Your task to perform on an android device: stop showing notifications on the lock screen Image 0: 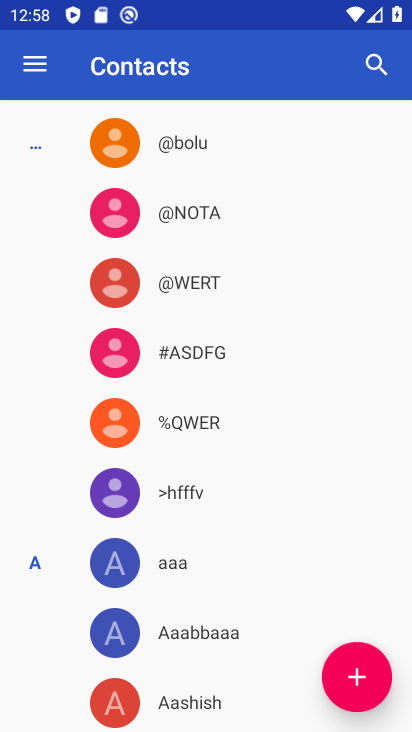
Step 0: press home button
Your task to perform on an android device: stop showing notifications on the lock screen Image 1: 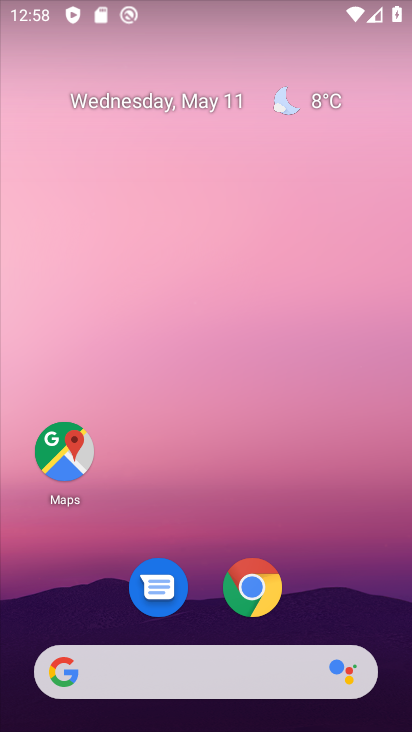
Step 1: drag from (336, 491) to (334, 235)
Your task to perform on an android device: stop showing notifications on the lock screen Image 2: 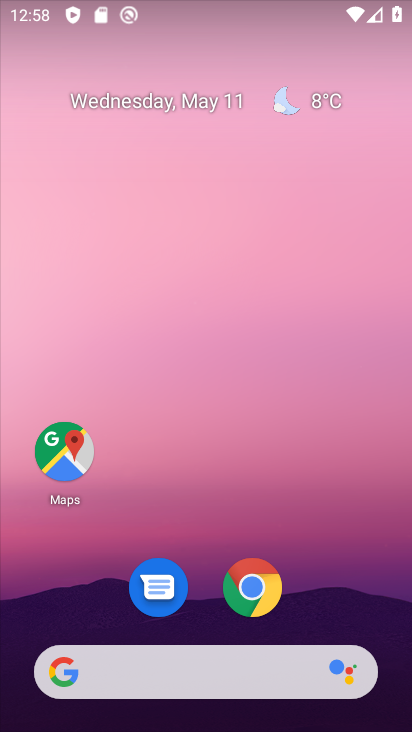
Step 2: drag from (378, 436) to (261, 206)
Your task to perform on an android device: stop showing notifications on the lock screen Image 3: 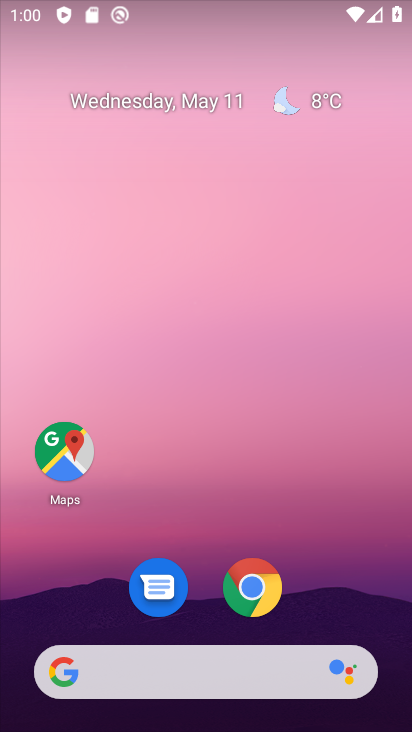
Step 3: drag from (337, 444) to (250, 23)
Your task to perform on an android device: stop showing notifications on the lock screen Image 4: 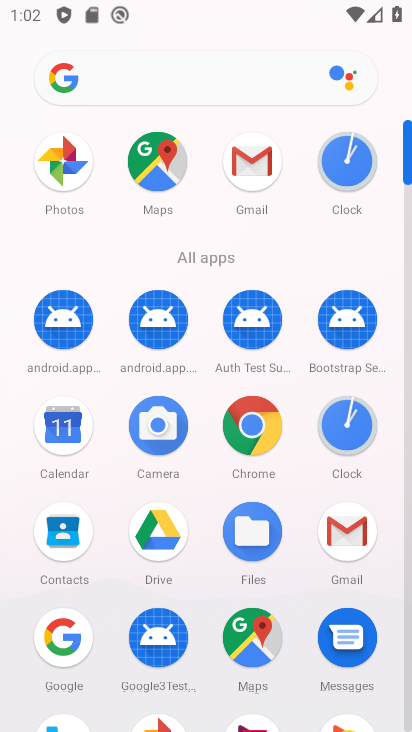
Step 4: click (405, 727)
Your task to perform on an android device: stop showing notifications on the lock screen Image 5: 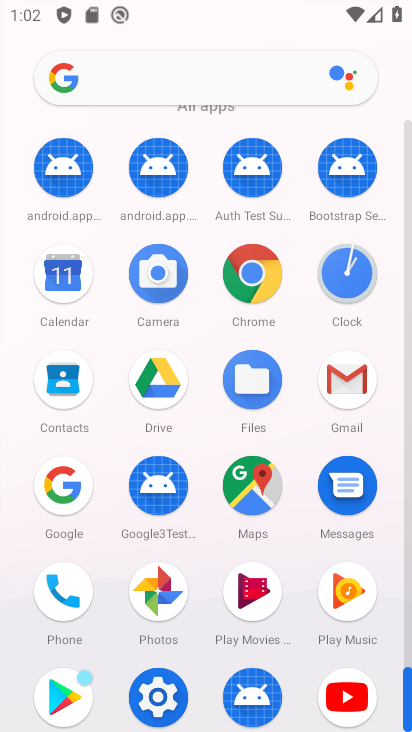
Step 5: click (405, 727)
Your task to perform on an android device: stop showing notifications on the lock screen Image 6: 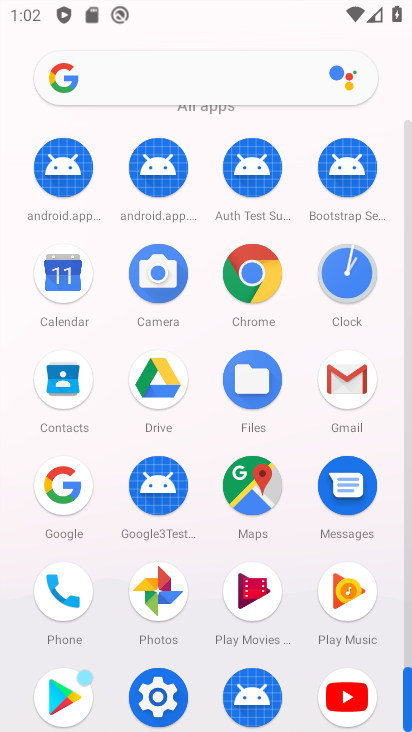
Step 6: click (154, 695)
Your task to perform on an android device: stop showing notifications on the lock screen Image 7: 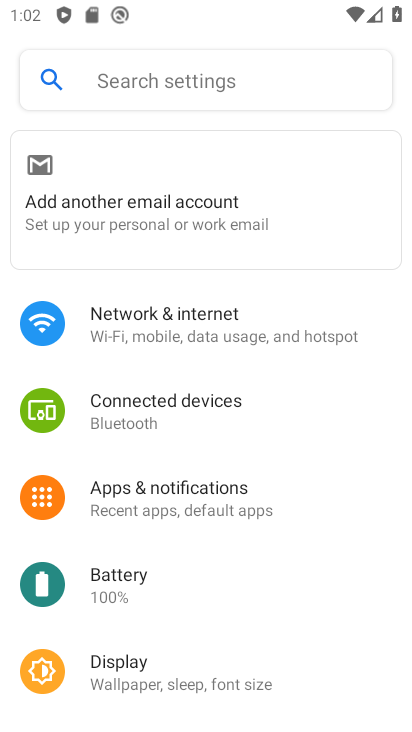
Step 7: click (197, 489)
Your task to perform on an android device: stop showing notifications on the lock screen Image 8: 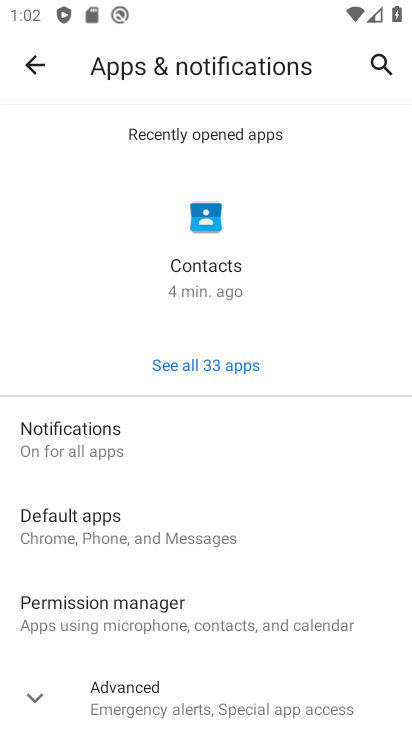
Step 8: click (230, 707)
Your task to perform on an android device: stop showing notifications on the lock screen Image 9: 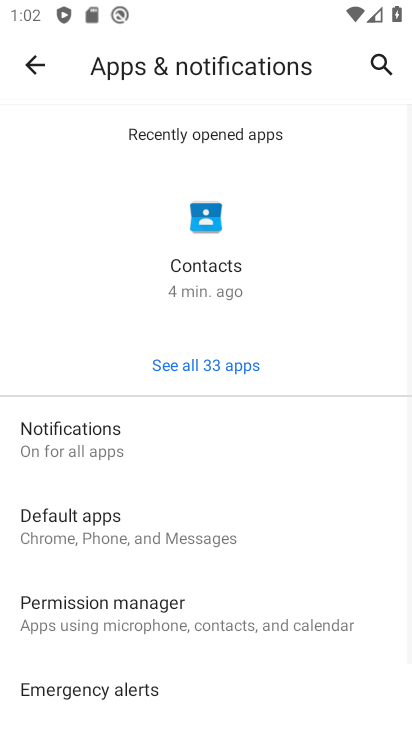
Step 9: drag from (229, 656) to (239, 371)
Your task to perform on an android device: stop showing notifications on the lock screen Image 10: 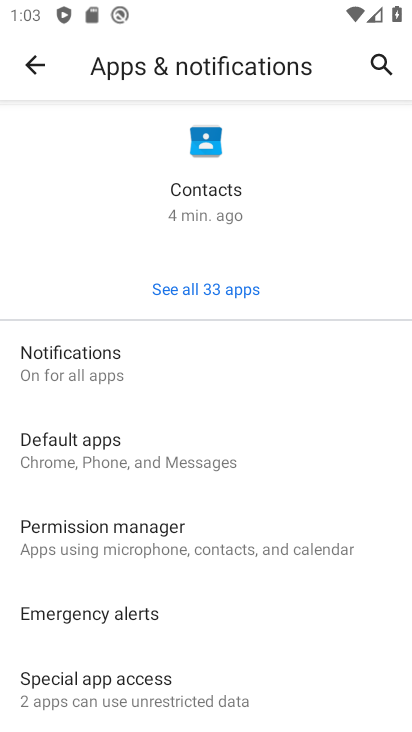
Step 10: click (128, 206)
Your task to perform on an android device: stop showing notifications on the lock screen Image 11: 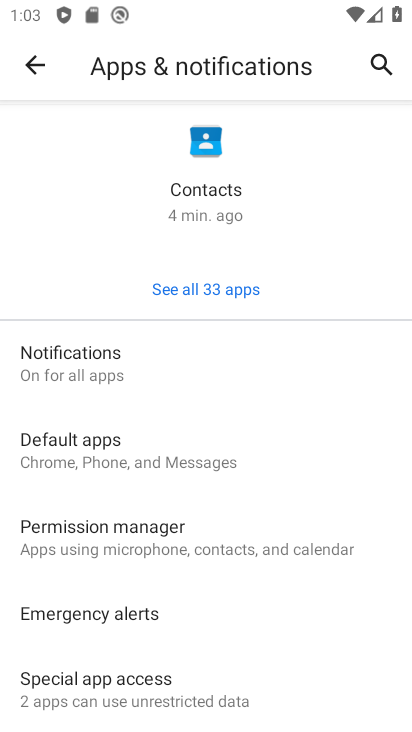
Step 11: drag from (195, 386) to (185, 258)
Your task to perform on an android device: stop showing notifications on the lock screen Image 12: 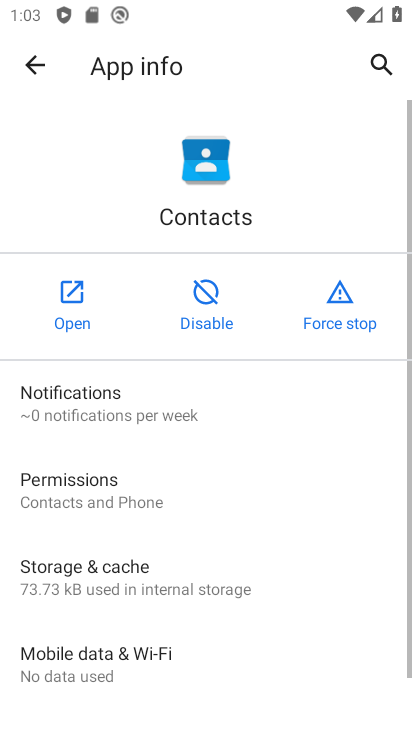
Step 12: drag from (223, 374) to (223, 302)
Your task to perform on an android device: stop showing notifications on the lock screen Image 13: 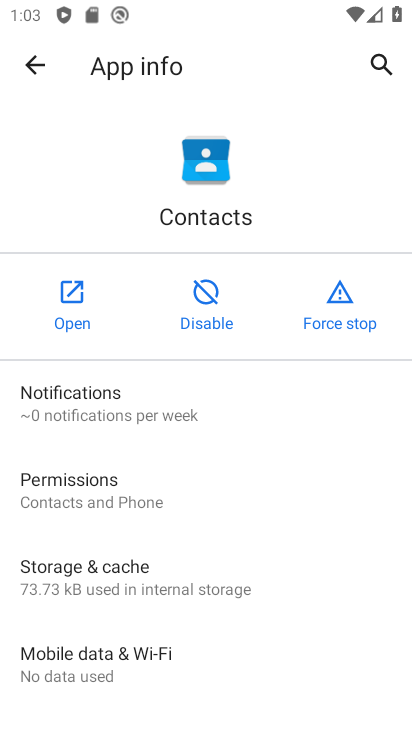
Step 13: drag from (211, 584) to (234, 212)
Your task to perform on an android device: stop showing notifications on the lock screen Image 14: 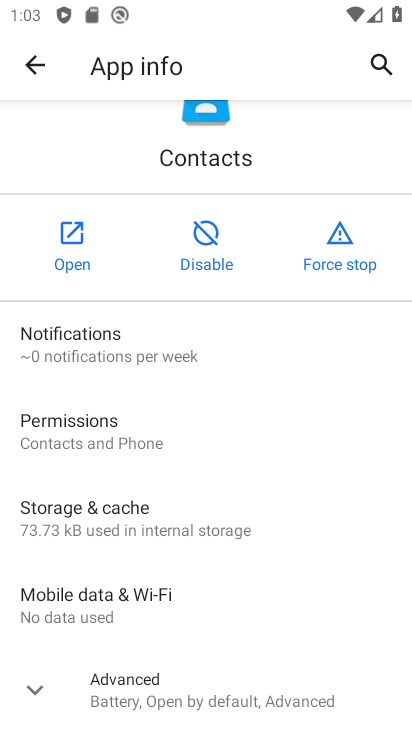
Step 14: drag from (152, 614) to (173, 259)
Your task to perform on an android device: stop showing notifications on the lock screen Image 15: 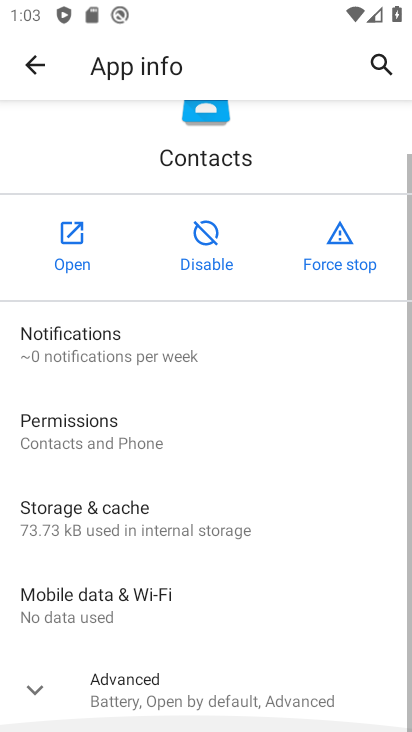
Step 15: click (162, 704)
Your task to perform on an android device: stop showing notifications on the lock screen Image 16: 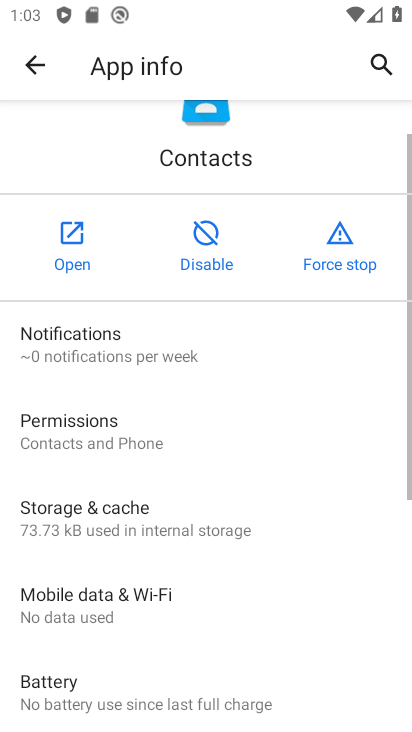
Step 16: drag from (228, 683) to (228, 216)
Your task to perform on an android device: stop showing notifications on the lock screen Image 17: 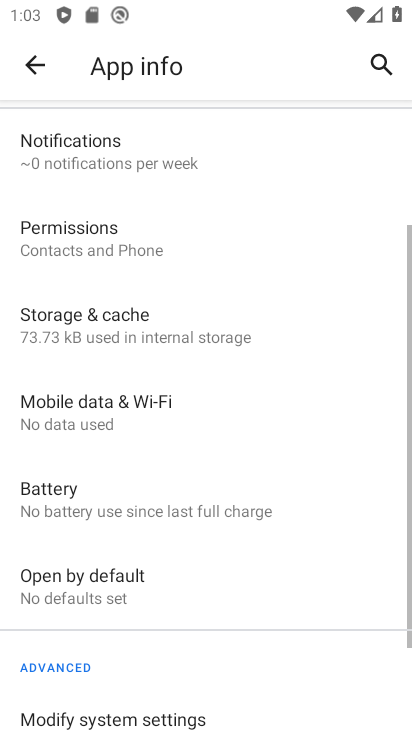
Step 17: drag from (275, 309) to (283, 81)
Your task to perform on an android device: stop showing notifications on the lock screen Image 18: 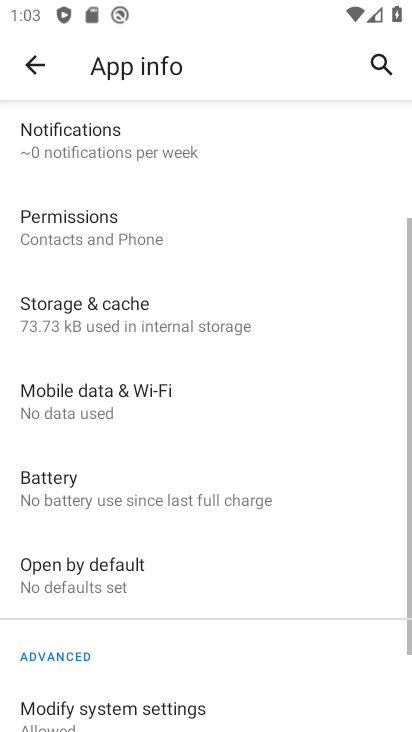
Step 18: drag from (231, 197) to (232, 153)
Your task to perform on an android device: stop showing notifications on the lock screen Image 19: 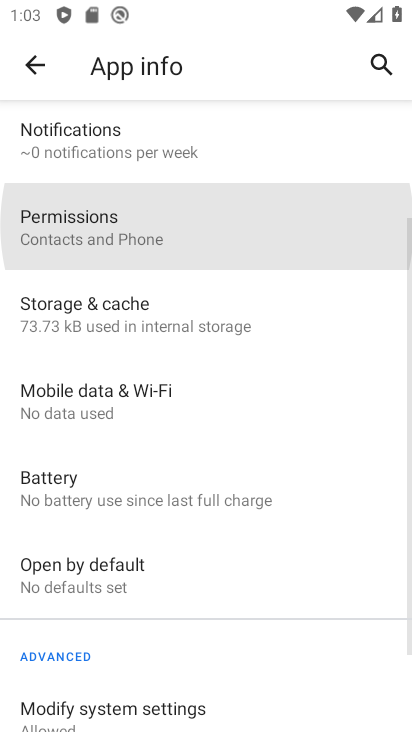
Step 19: drag from (224, 271) to (224, 138)
Your task to perform on an android device: stop showing notifications on the lock screen Image 20: 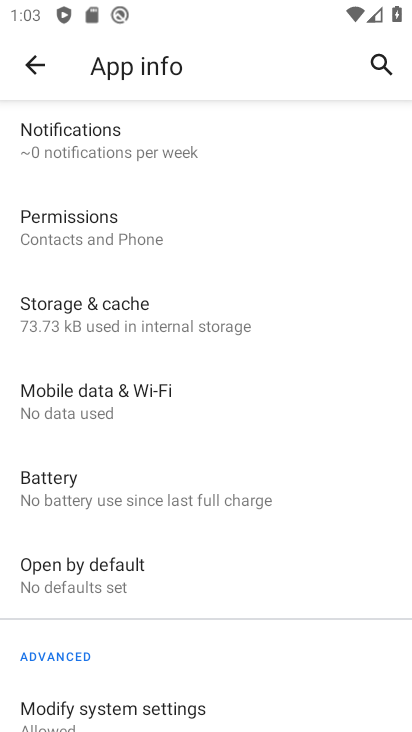
Step 20: drag from (248, 432) to (232, 100)
Your task to perform on an android device: stop showing notifications on the lock screen Image 21: 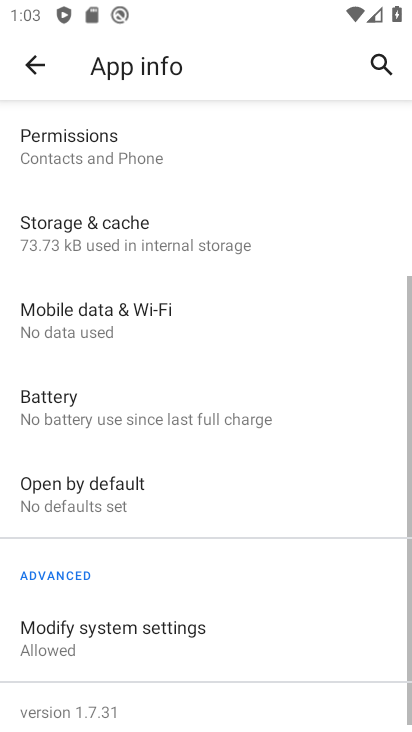
Step 21: drag from (232, 186) to (232, 113)
Your task to perform on an android device: stop showing notifications on the lock screen Image 22: 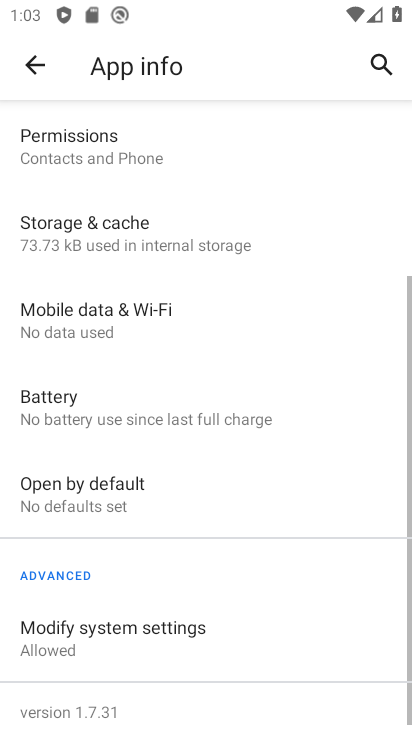
Step 22: drag from (259, 458) to (279, 136)
Your task to perform on an android device: stop showing notifications on the lock screen Image 23: 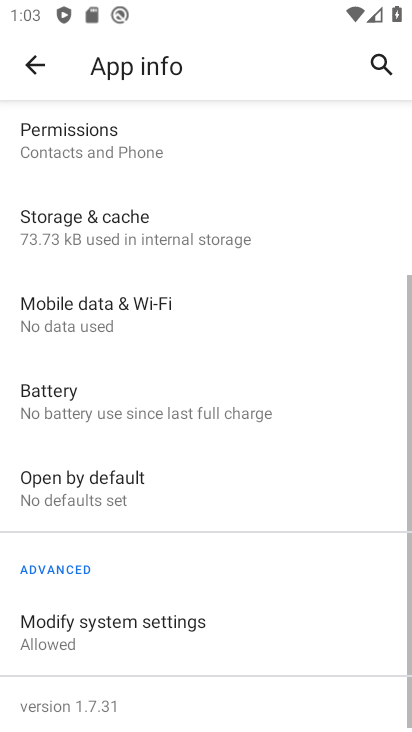
Step 23: drag from (225, 650) to (246, 311)
Your task to perform on an android device: stop showing notifications on the lock screen Image 24: 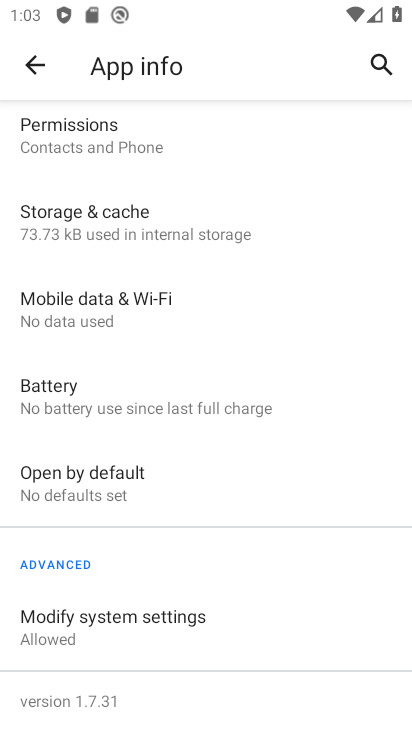
Step 24: drag from (255, 274) to (19, 727)
Your task to perform on an android device: stop showing notifications on the lock screen Image 25: 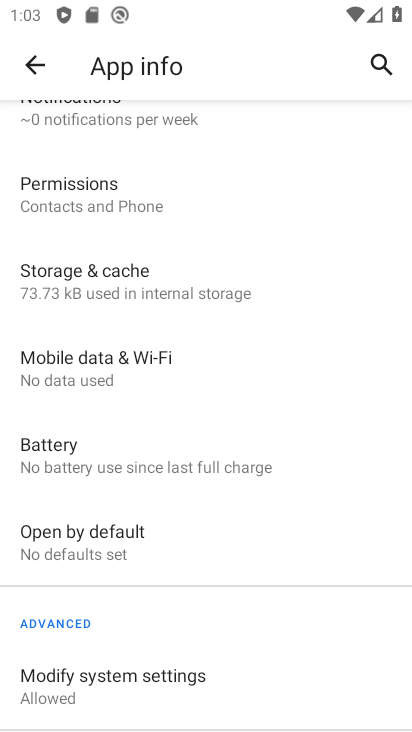
Step 25: drag from (186, 185) to (67, 710)
Your task to perform on an android device: stop showing notifications on the lock screen Image 26: 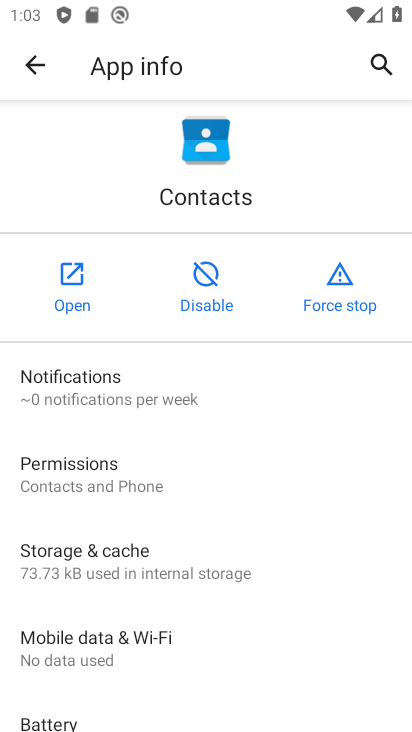
Step 26: click (24, 49)
Your task to perform on an android device: stop showing notifications on the lock screen Image 27: 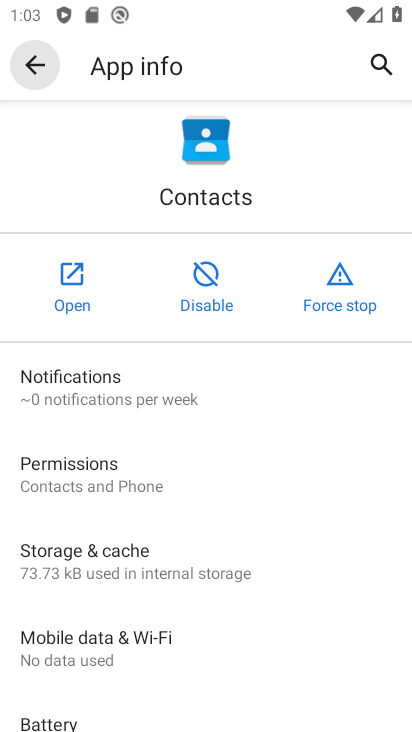
Step 27: click (24, 49)
Your task to perform on an android device: stop showing notifications on the lock screen Image 28: 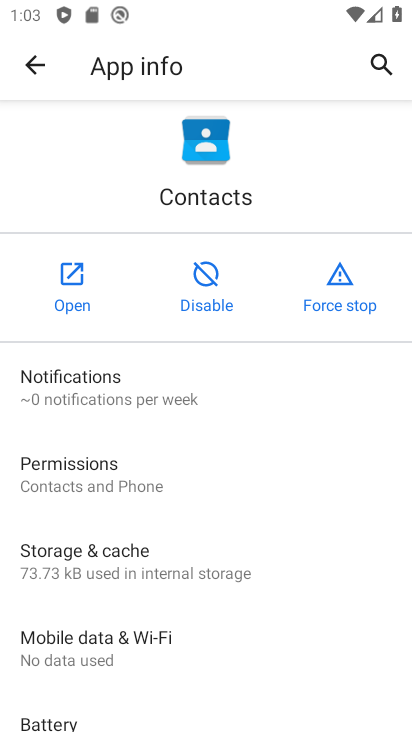
Step 28: click (24, 49)
Your task to perform on an android device: stop showing notifications on the lock screen Image 29: 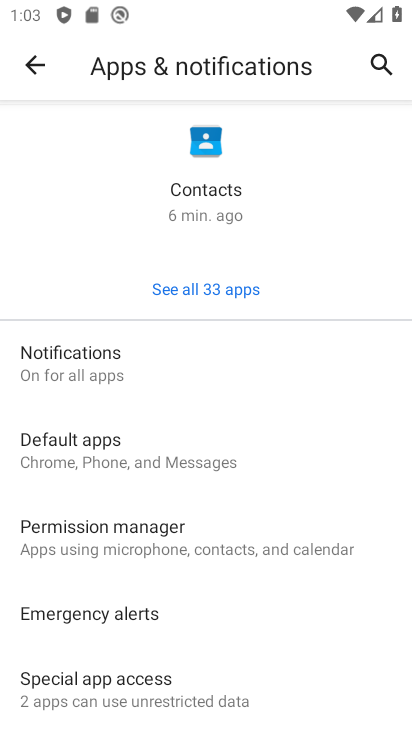
Step 29: click (26, 64)
Your task to perform on an android device: stop showing notifications on the lock screen Image 30: 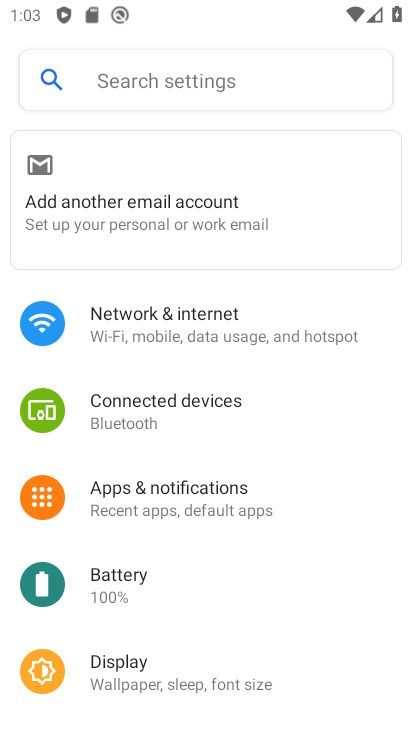
Step 30: click (132, 510)
Your task to perform on an android device: stop showing notifications on the lock screen Image 31: 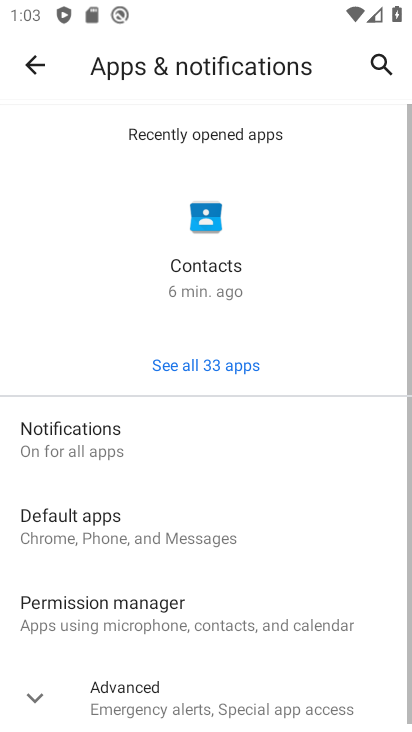
Step 31: click (162, 436)
Your task to perform on an android device: stop showing notifications on the lock screen Image 32: 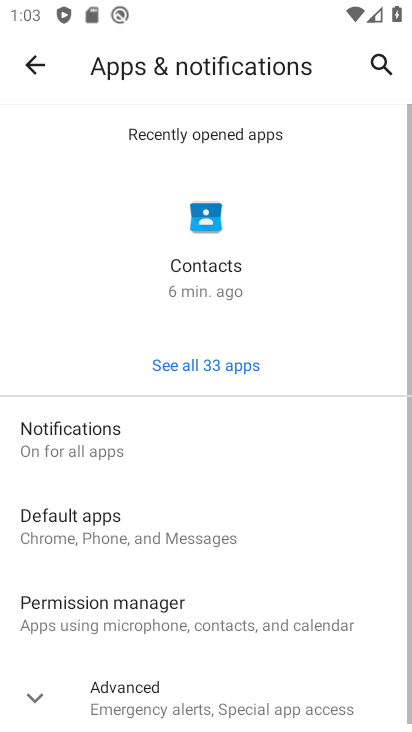
Step 32: drag from (301, 669) to (299, 435)
Your task to perform on an android device: stop showing notifications on the lock screen Image 33: 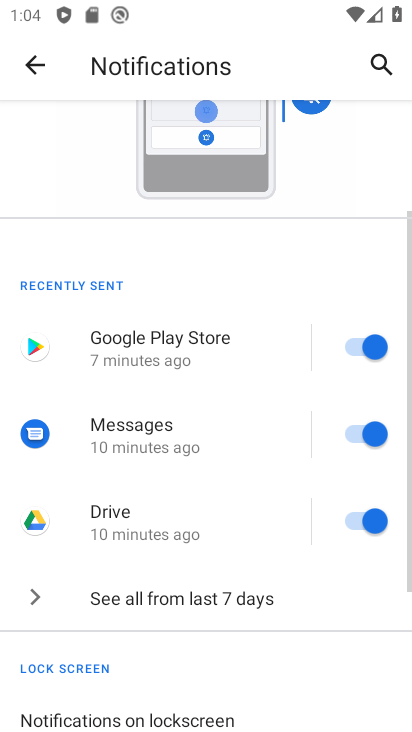
Step 33: drag from (221, 570) to (224, 460)
Your task to perform on an android device: stop showing notifications on the lock screen Image 34: 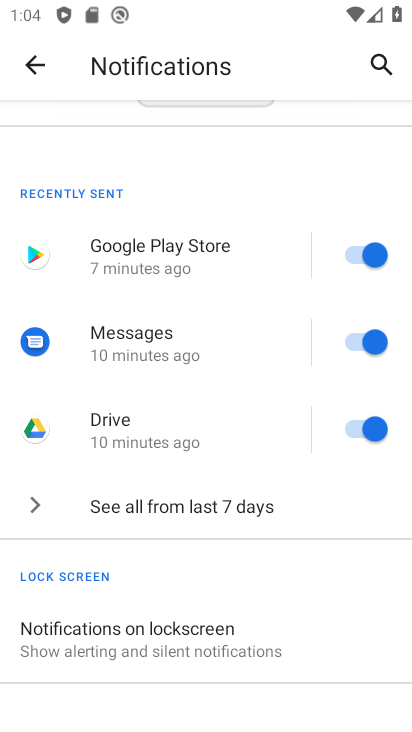
Step 34: click (215, 665)
Your task to perform on an android device: stop showing notifications on the lock screen Image 35: 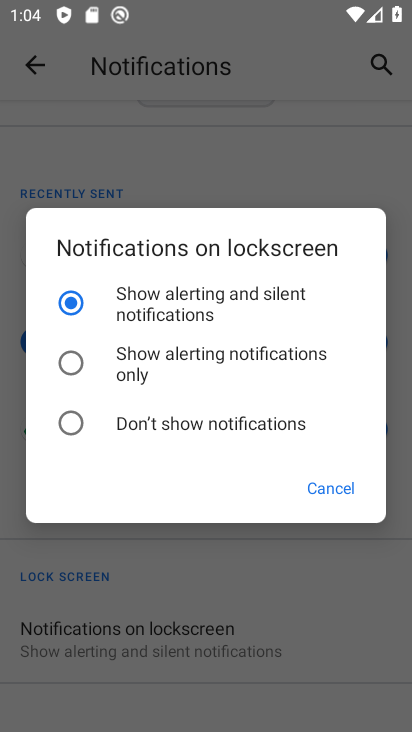
Step 35: click (171, 409)
Your task to perform on an android device: stop showing notifications on the lock screen Image 36: 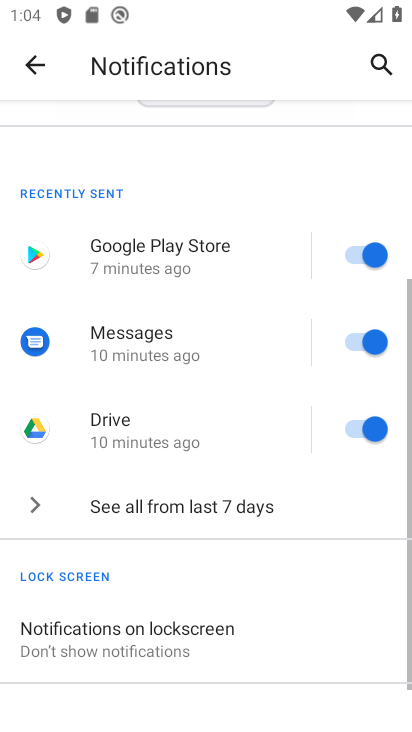
Step 36: task complete